Your task to perform on an android device: What is the news today? Image 0: 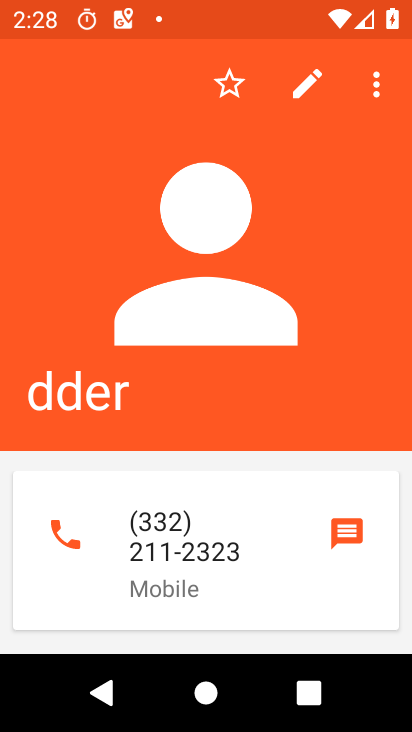
Step 0: press home button
Your task to perform on an android device: What is the news today? Image 1: 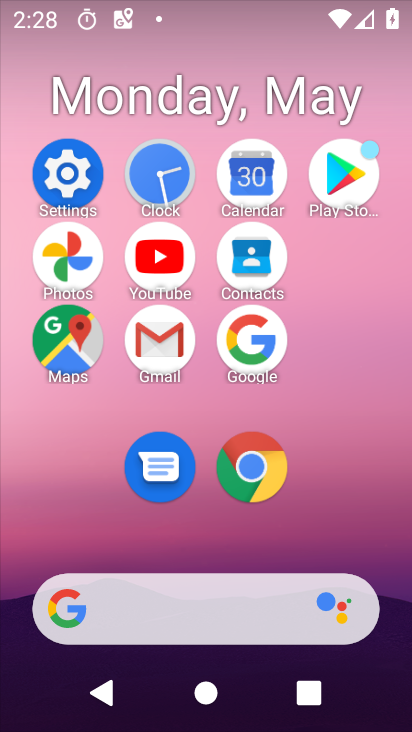
Step 1: click (239, 350)
Your task to perform on an android device: What is the news today? Image 2: 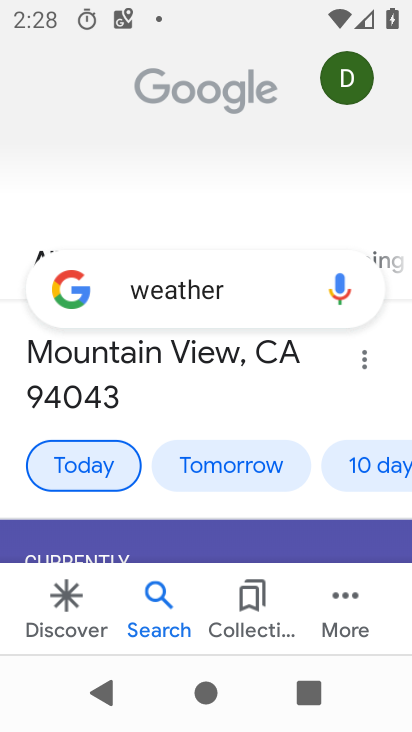
Step 2: click (263, 283)
Your task to perform on an android device: What is the news today? Image 3: 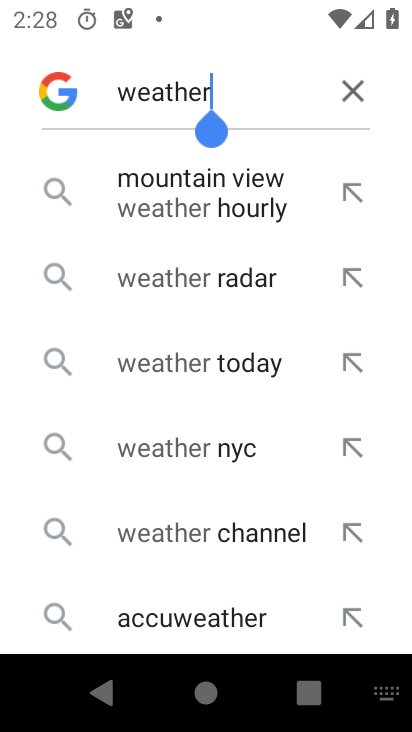
Step 3: click (342, 84)
Your task to perform on an android device: What is the news today? Image 4: 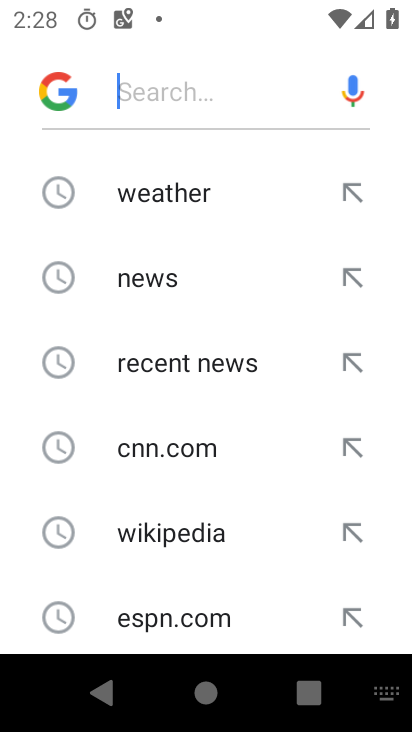
Step 4: click (187, 275)
Your task to perform on an android device: What is the news today? Image 5: 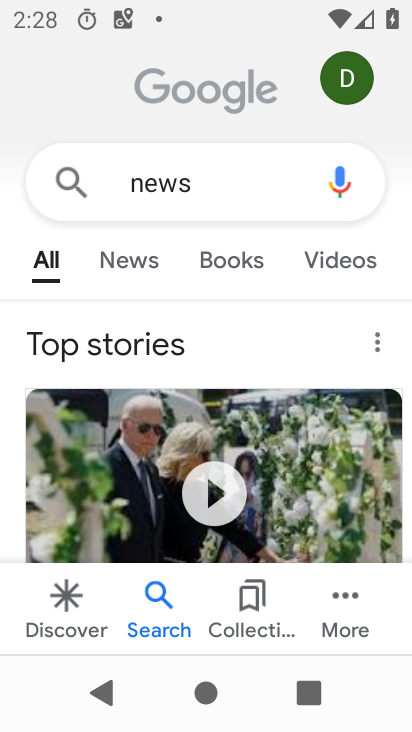
Step 5: task complete